Your task to perform on an android device: Show me recent news Image 0: 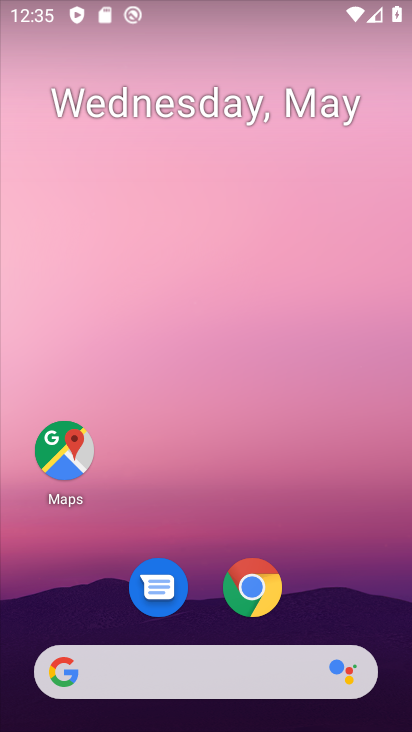
Step 0: drag from (3, 277) to (315, 281)
Your task to perform on an android device: Show me recent news Image 1: 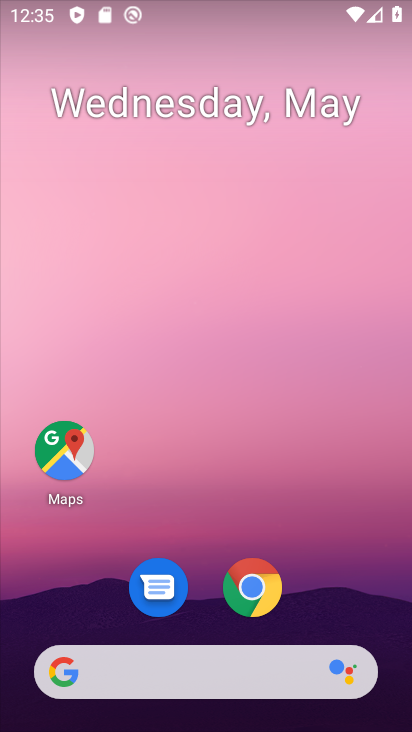
Step 1: task complete